Your task to perform on an android device: open app "Mercado Libre" Image 0: 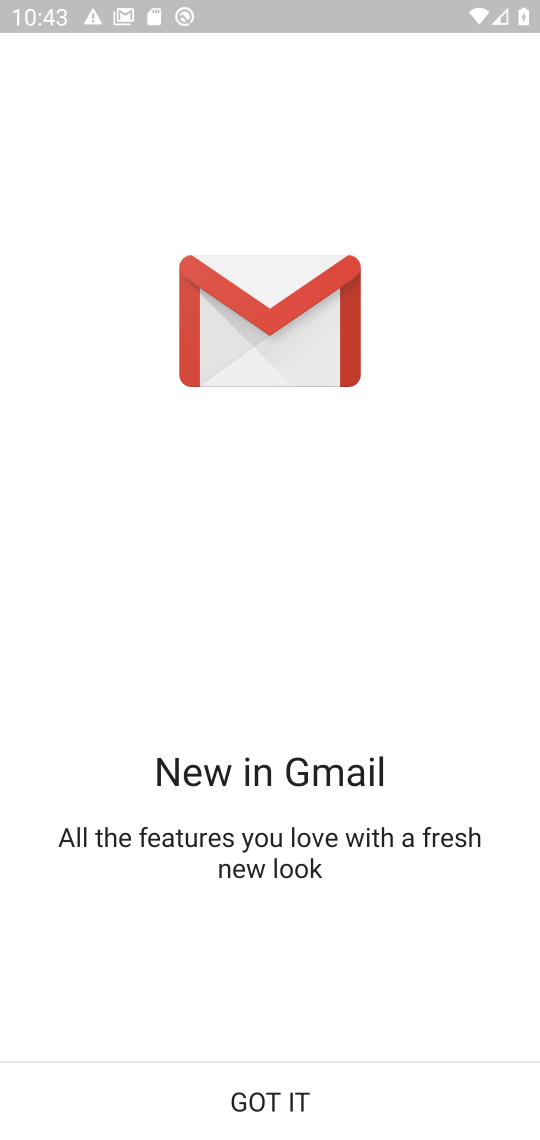
Step 0: press home button
Your task to perform on an android device: open app "Mercado Libre" Image 1: 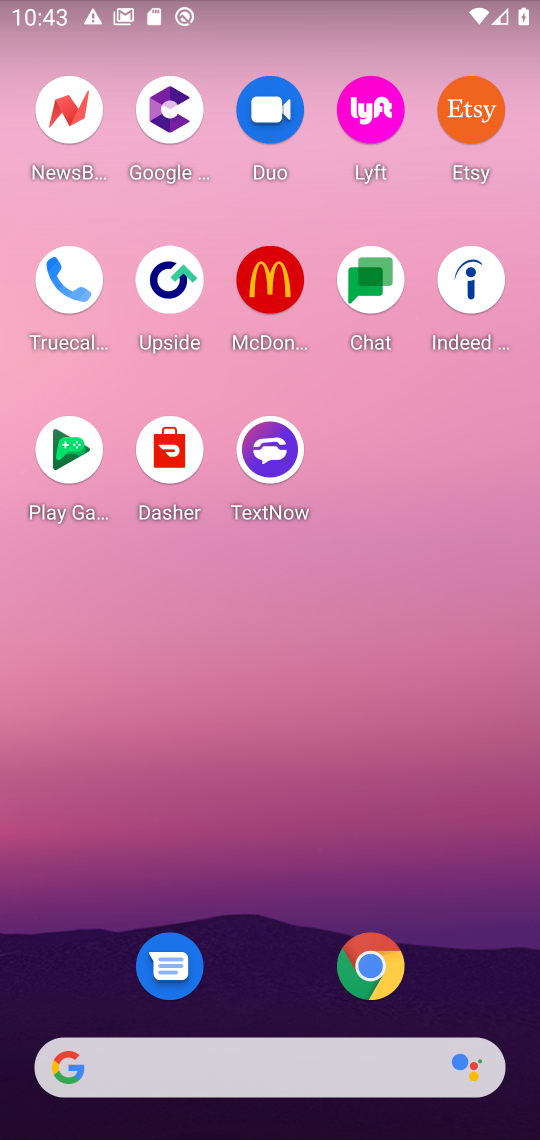
Step 1: drag from (284, 997) to (67, 18)
Your task to perform on an android device: open app "Mercado Libre" Image 2: 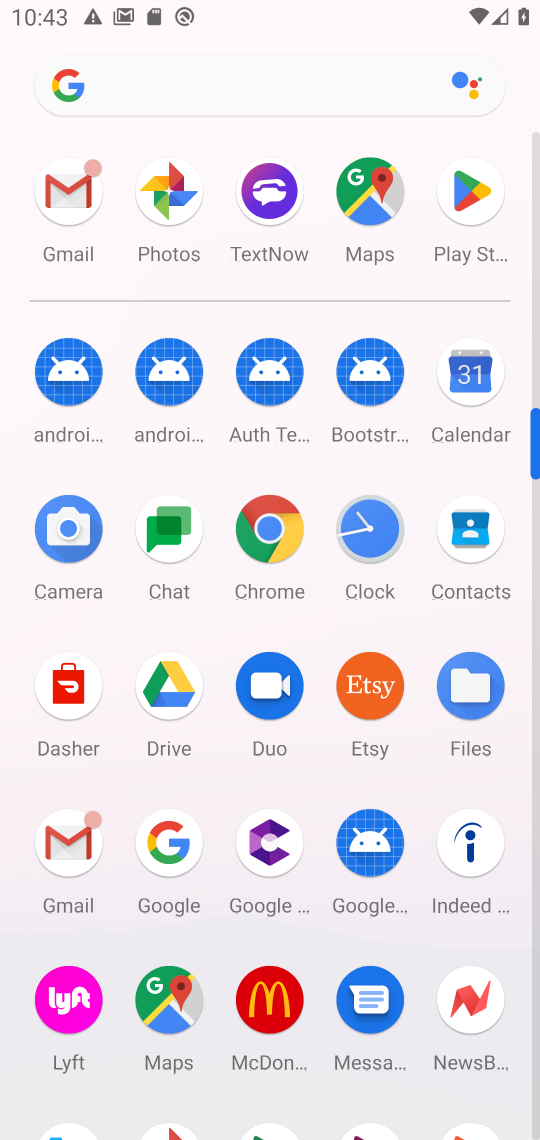
Step 2: click (471, 252)
Your task to perform on an android device: open app "Mercado Libre" Image 3: 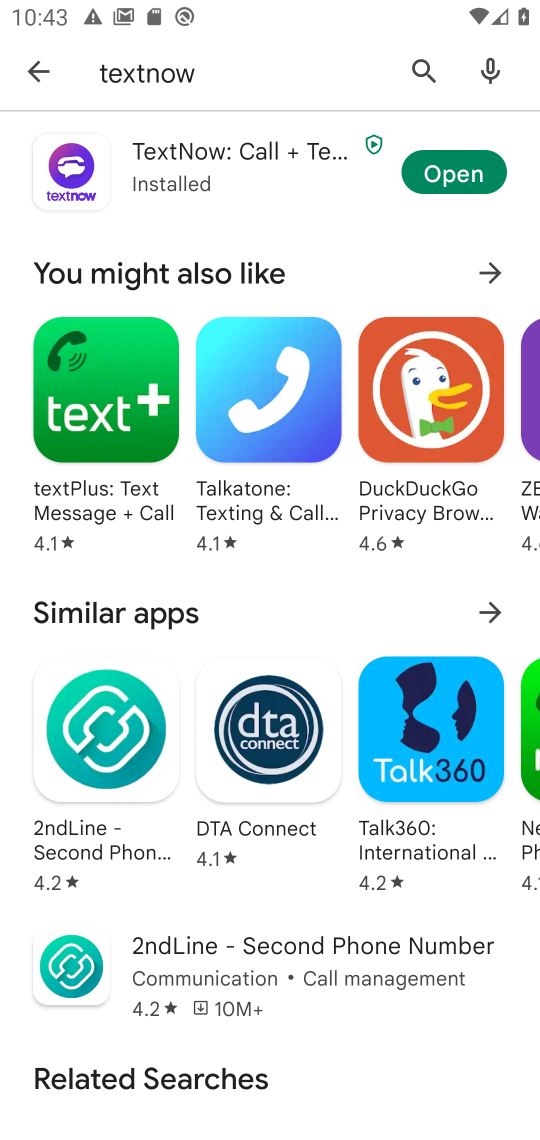
Step 3: click (250, 73)
Your task to perform on an android device: open app "Mercado Libre" Image 4: 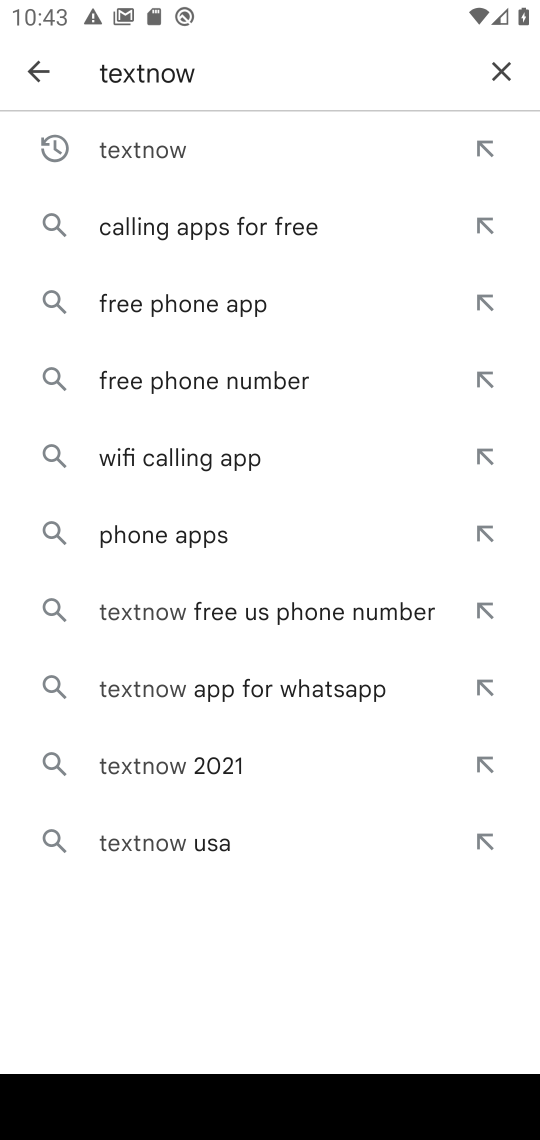
Step 4: click (501, 78)
Your task to perform on an android device: open app "Mercado Libre" Image 5: 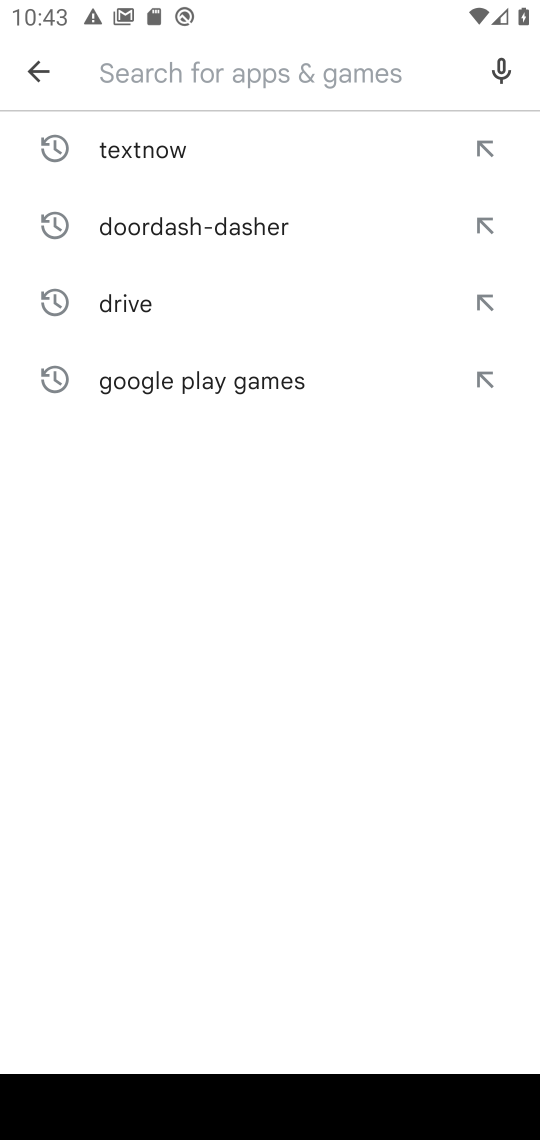
Step 5: type "mercado libre"
Your task to perform on an android device: open app "Mercado Libre" Image 6: 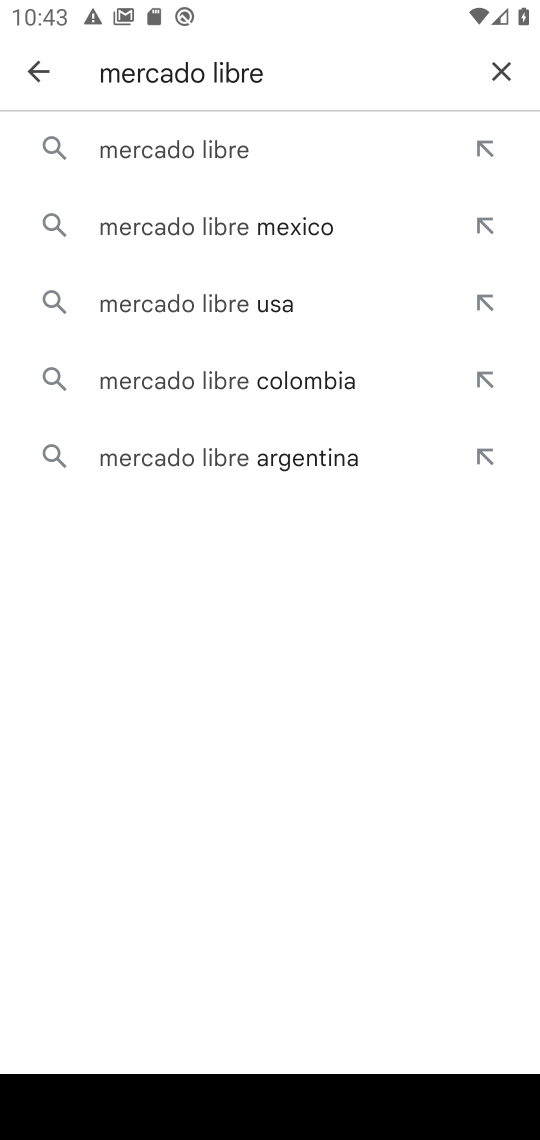
Step 6: click (214, 166)
Your task to perform on an android device: open app "Mercado Libre" Image 7: 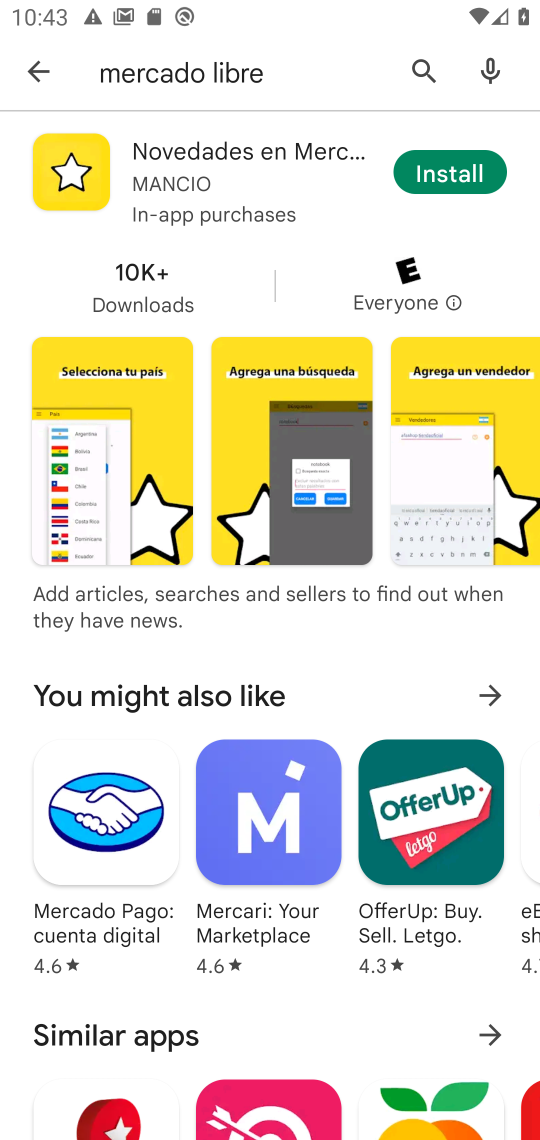
Step 7: task complete